Your task to perform on an android device: turn off data saver in the chrome app Image 0: 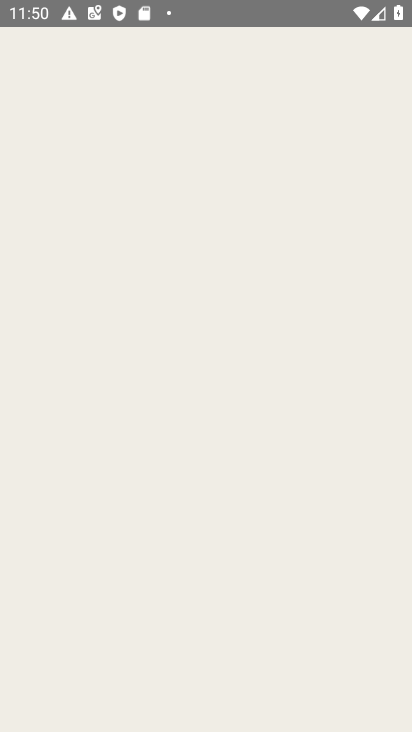
Step 0: press home button
Your task to perform on an android device: turn off data saver in the chrome app Image 1: 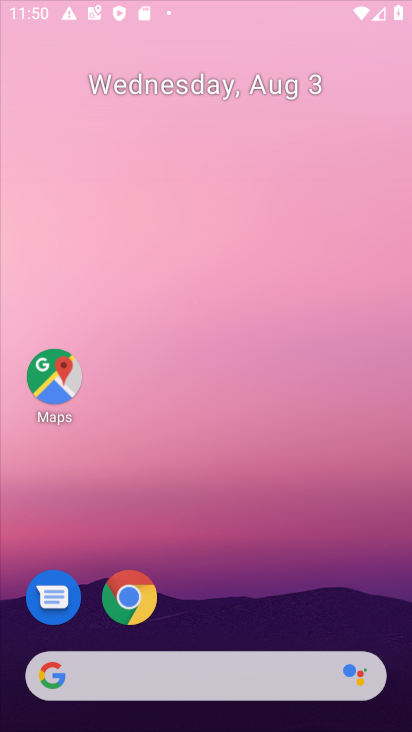
Step 1: press home button
Your task to perform on an android device: turn off data saver in the chrome app Image 2: 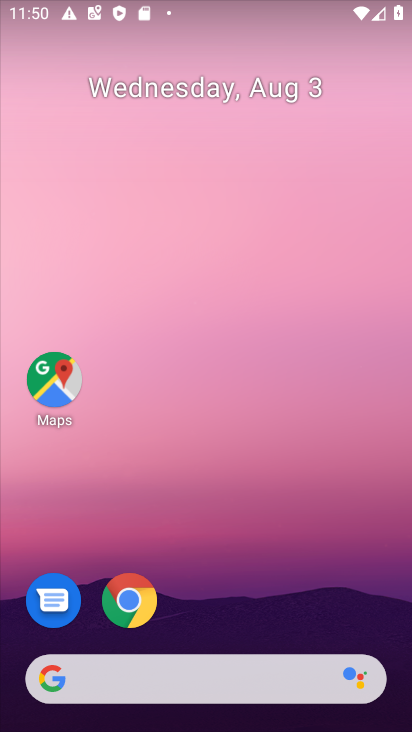
Step 2: click (123, 575)
Your task to perform on an android device: turn off data saver in the chrome app Image 3: 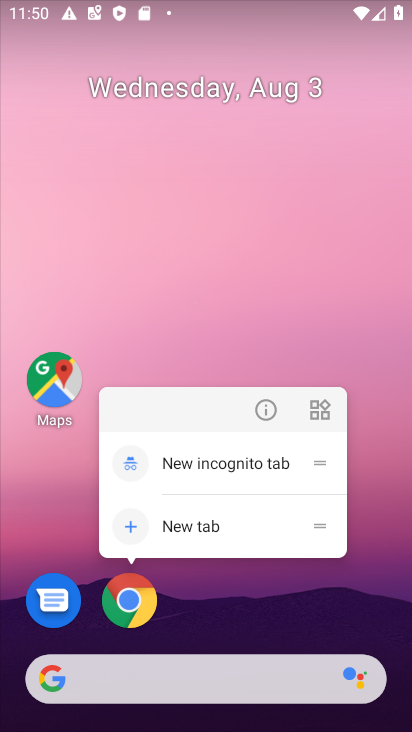
Step 3: click (133, 596)
Your task to perform on an android device: turn off data saver in the chrome app Image 4: 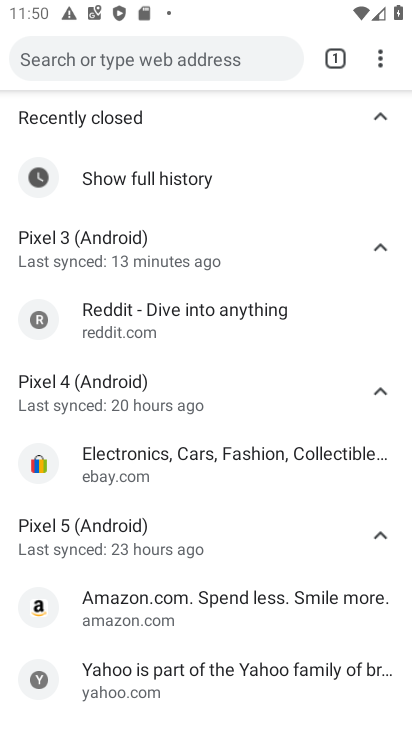
Step 4: drag from (377, 66) to (214, 546)
Your task to perform on an android device: turn off data saver in the chrome app Image 5: 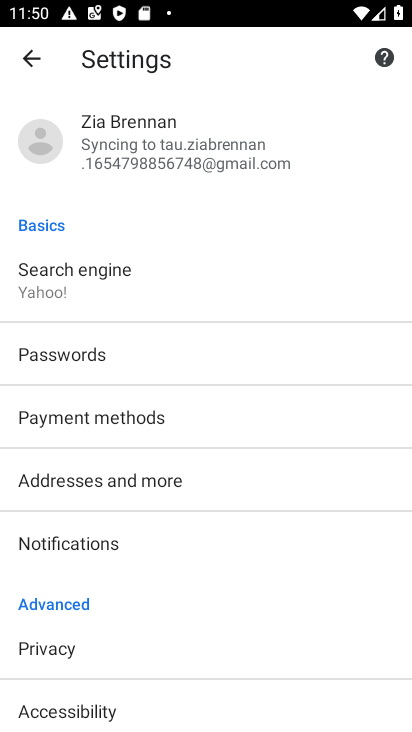
Step 5: drag from (151, 639) to (266, 263)
Your task to perform on an android device: turn off data saver in the chrome app Image 6: 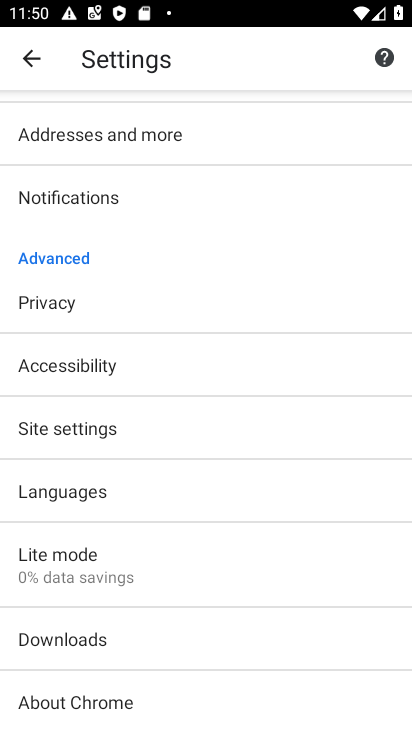
Step 6: click (66, 561)
Your task to perform on an android device: turn off data saver in the chrome app Image 7: 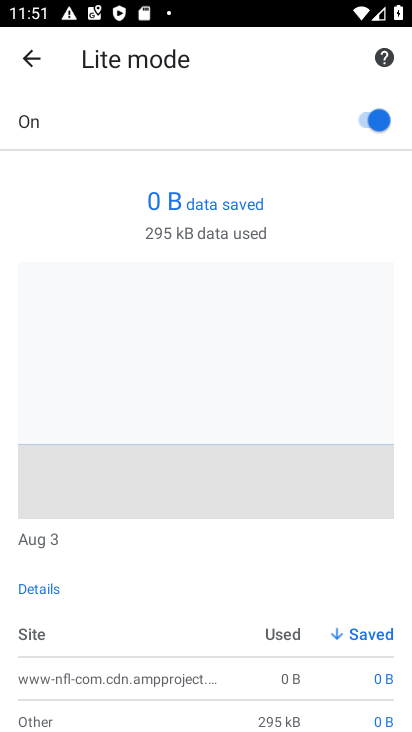
Step 7: click (366, 119)
Your task to perform on an android device: turn off data saver in the chrome app Image 8: 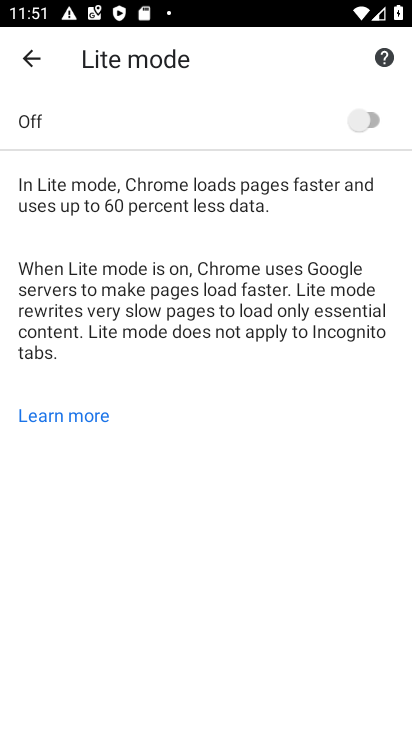
Step 8: task complete